Your task to perform on an android device: allow notifications from all sites in the chrome app Image 0: 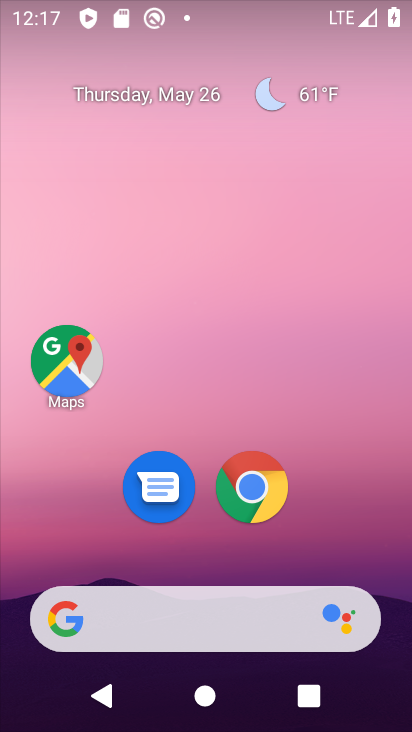
Step 0: click (260, 709)
Your task to perform on an android device: allow notifications from all sites in the chrome app Image 1: 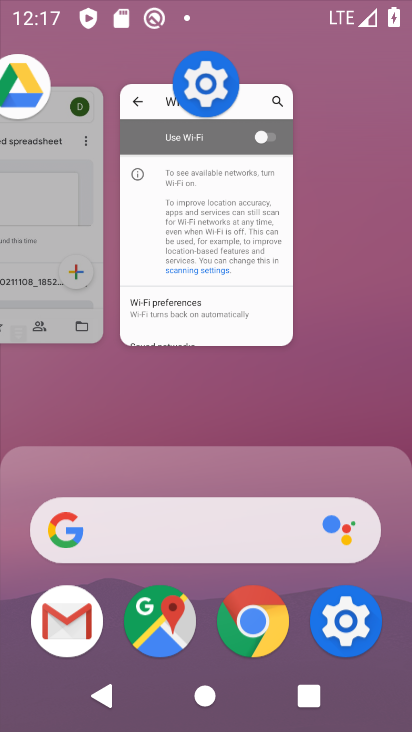
Step 1: click (338, 419)
Your task to perform on an android device: allow notifications from all sites in the chrome app Image 2: 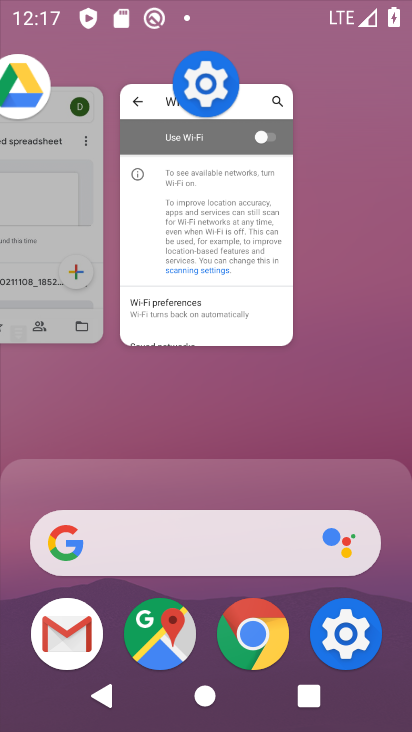
Step 2: click (342, 395)
Your task to perform on an android device: allow notifications from all sites in the chrome app Image 3: 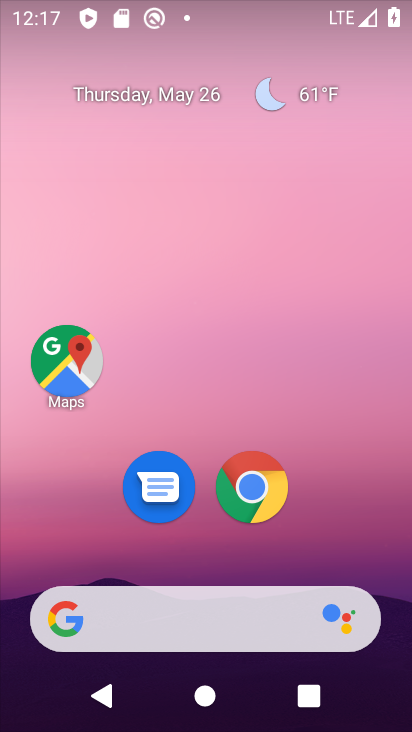
Step 3: drag from (362, 697) to (190, 33)
Your task to perform on an android device: allow notifications from all sites in the chrome app Image 4: 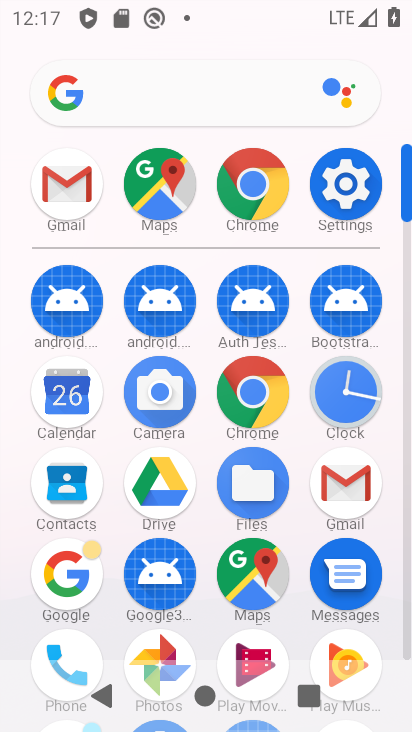
Step 4: click (225, 174)
Your task to perform on an android device: allow notifications from all sites in the chrome app Image 5: 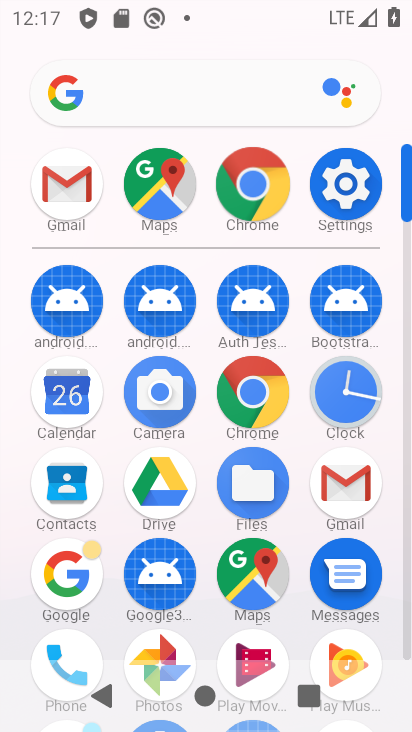
Step 5: click (231, 164)
Your task to perform on an android device: allow notifications from all sites in the chrome app Image 6: 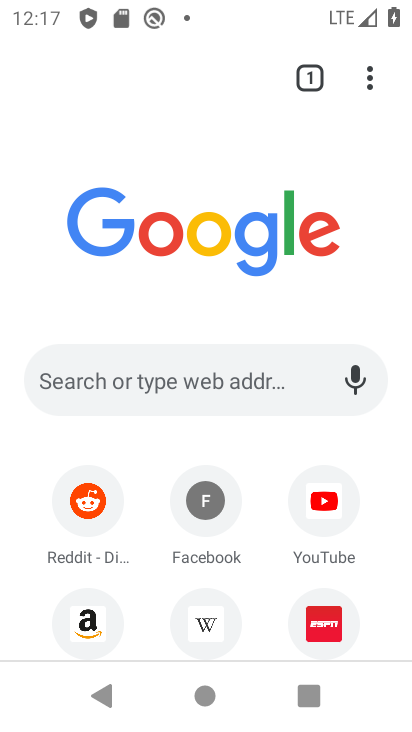
Step 6: drag from (376, 81) to (84, 530)
Your task to perform on an android device: allow notifications from all sites in the chrome app Image 7: 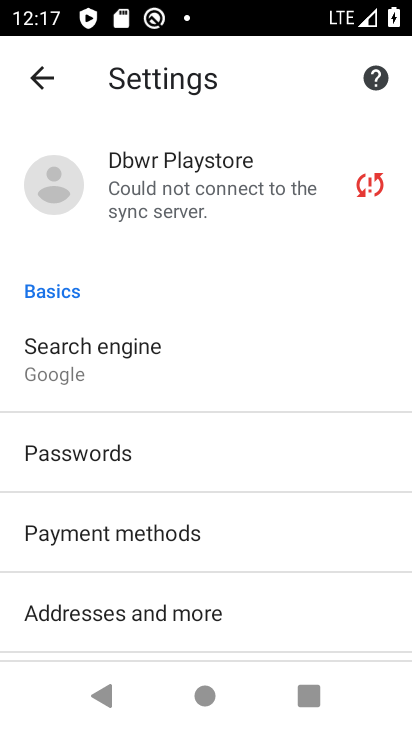
Step 7: drag from (84, 512) to (34, 260)
Your task to perform on an android device: allow notifications from all sites in the chrome app Image 8: 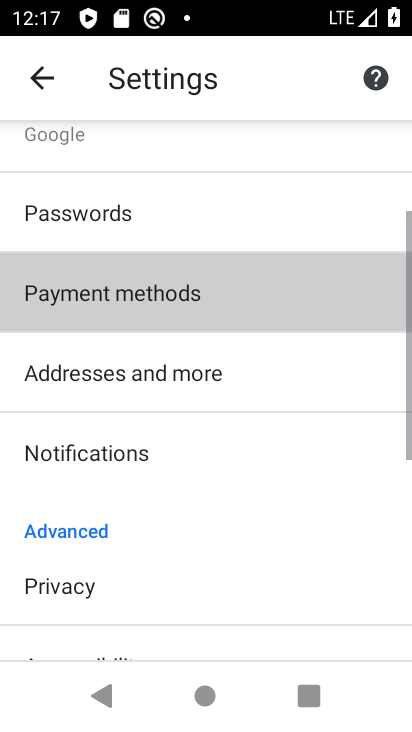
Step 8: drag from (143, 497) to (96, 215)
Your task to perform on an android device: allow notifications from all sites in the chrome app Image 9: 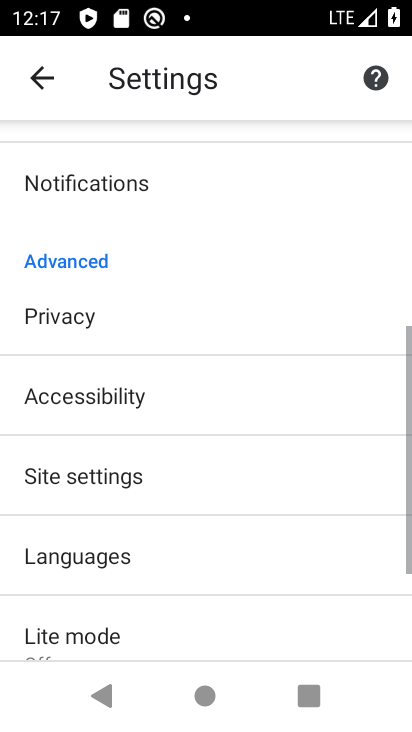
Step 9: drag from (122, 480) to (115, 227)
Your task to perform on an android device: allow notifications from all sites in the chrome app Image 10: 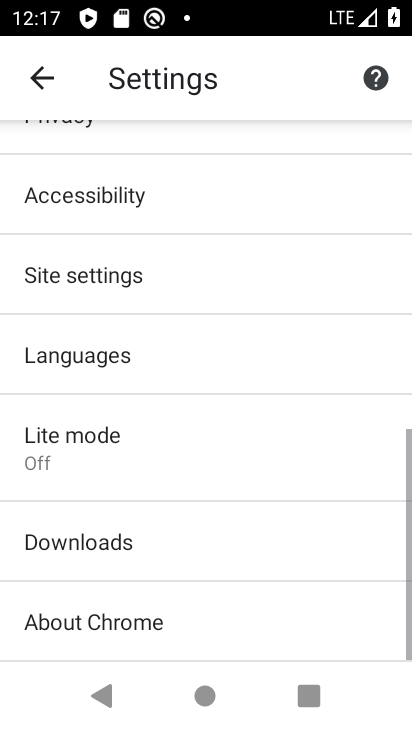
Step 10: drag from (125, 447) to (126, 168)
Your task to perform on an android device: allow notifications from all sites in the chrome app Image 11: 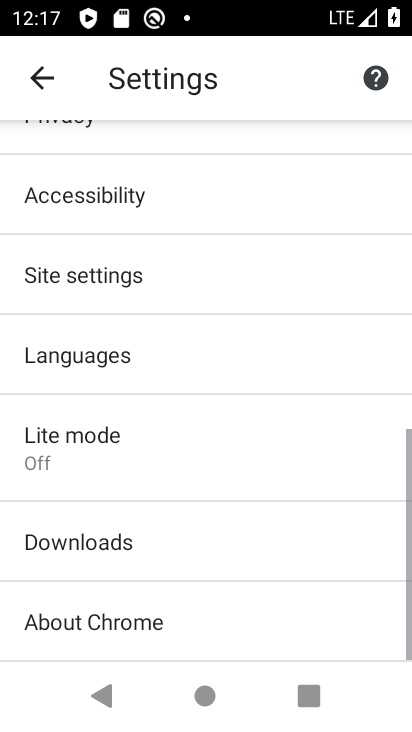
Step 11: click (74, 281)
Your task to perform on an android device: allow notifications from all sites in the chrome app Image 12: 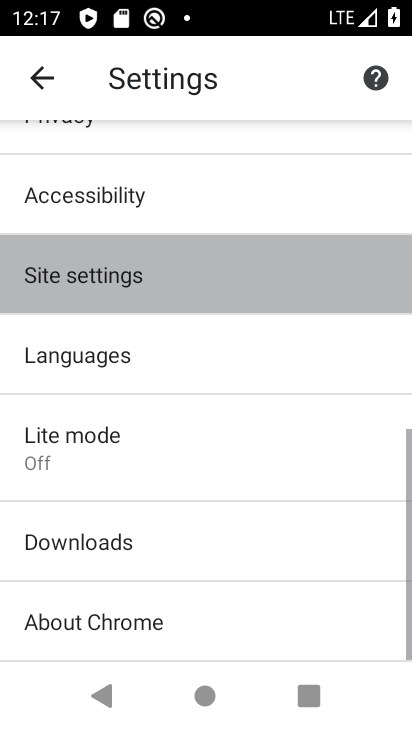
Step 12: click (87, 271)
Your task to perform on an android device: allow notifications from all sites in the chrome app Image 13: 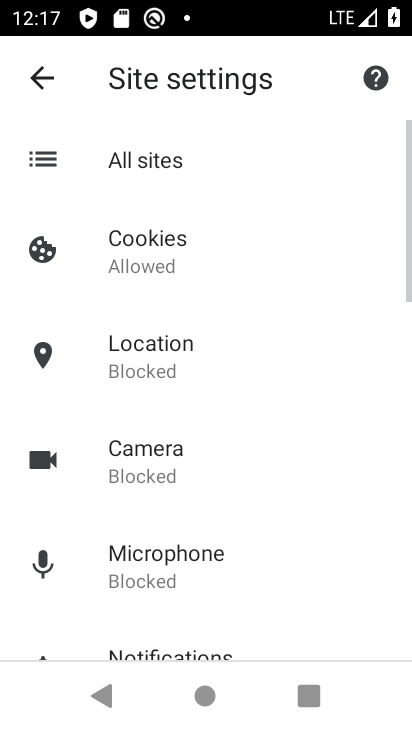
Step 13: click (148, 159)
Your task to perform on an android device: allow notifications from all sites in the chrome app Image 14: 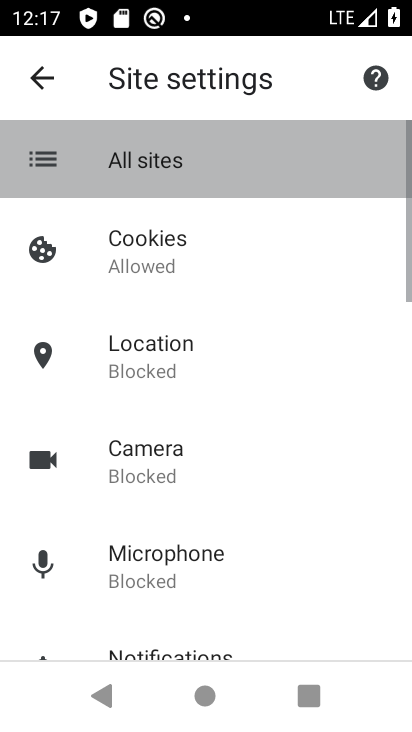
Step 14: click (148, 159)
Your task to perform on an android device: allow notifications from all sites in the chrome app Image 15: 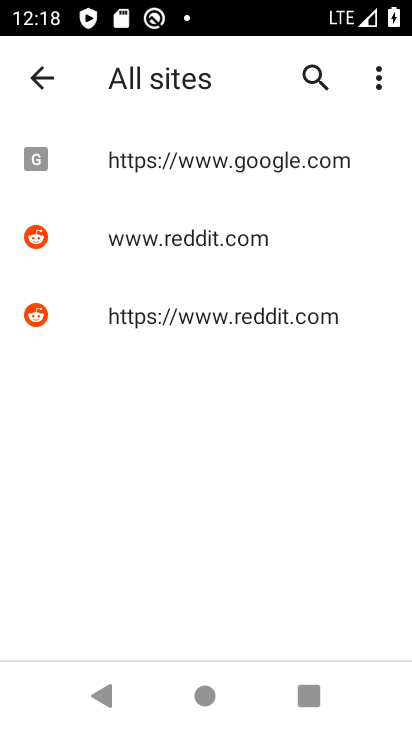
Step 15: task complete